Your task to perform on an android device: turn on javascript in the chrome app Image 0: 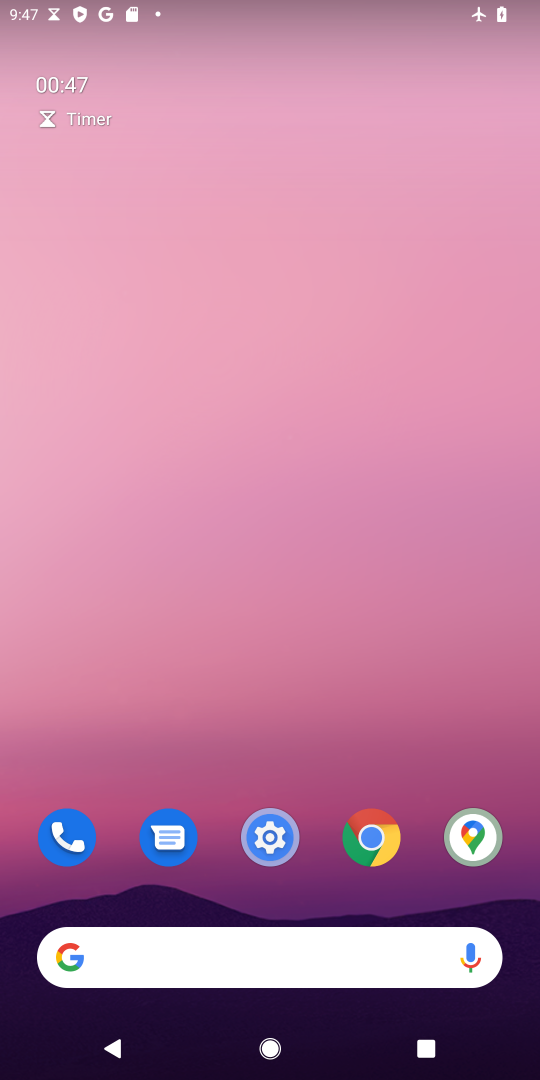
Step 0: click (367, 842)
Your task to perform on an android device: turn on javascript in the chrome app Image 1: 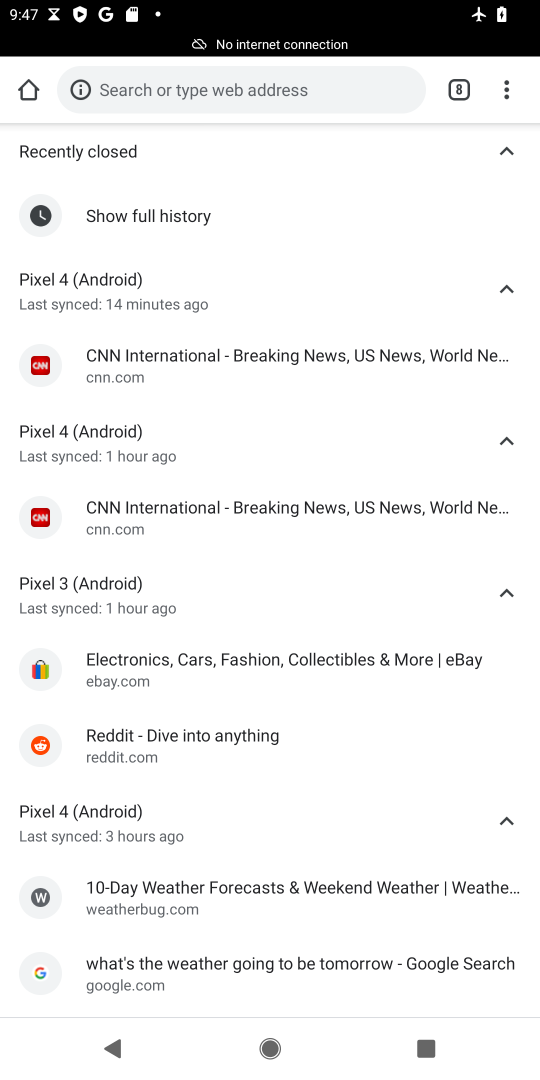
Step 1: drag from (508, 96) to (328, 669)
Your task to perform on an android device: turn on javascript in the chrome app Image 2: 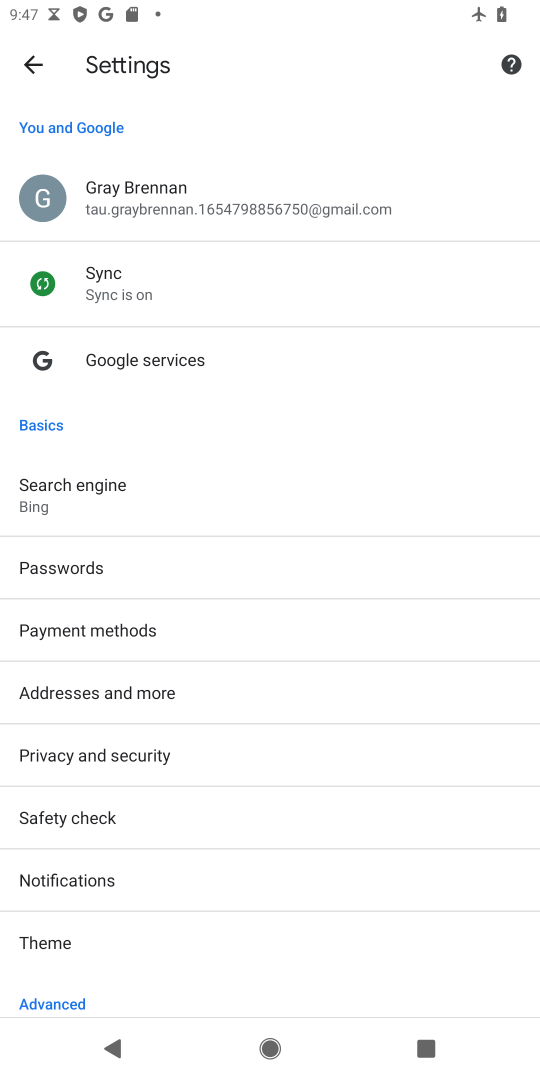
Step 2: drag from (49, 909) to (61, 494)
Your task to perform on an android device: turn on javascript in the chrome app Image 3: 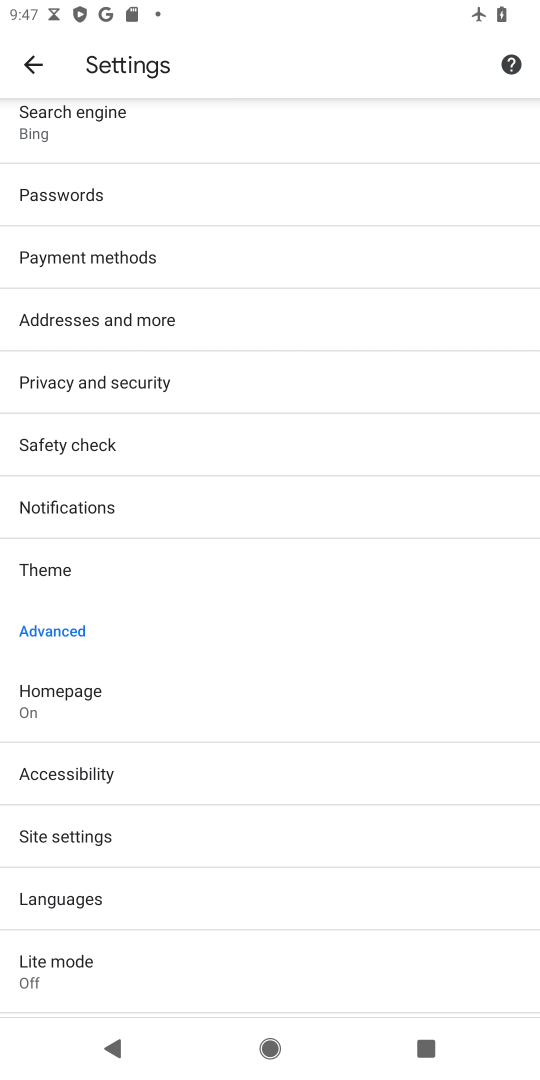
Step 3: click (60, 836)
Your task to perform on an android device: turn on javascript in the chrome app Image 4: 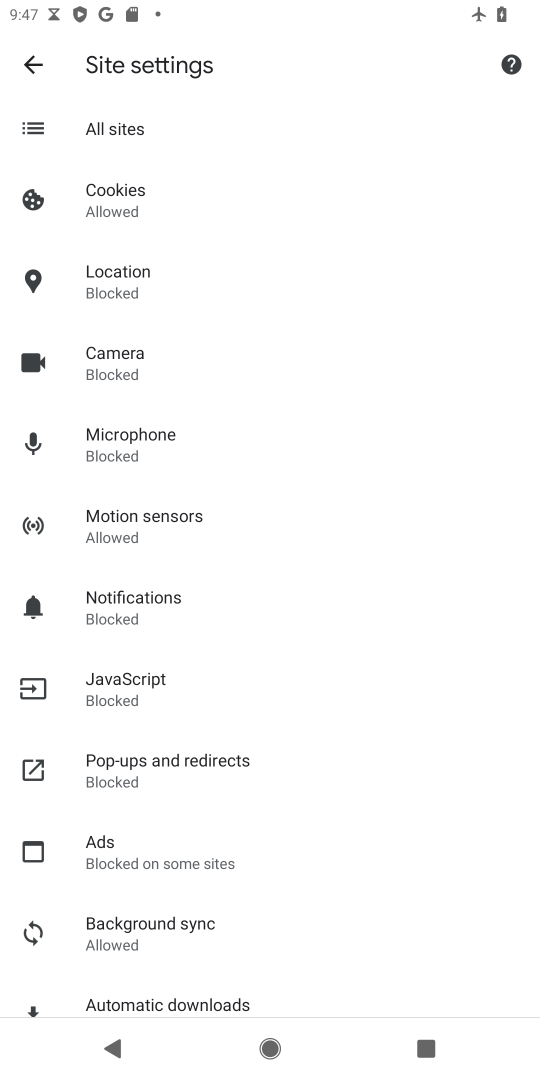
Step 4: click (124, 687)
Your task to perform on an android device: turn on javascript in the chrome app Image 5: 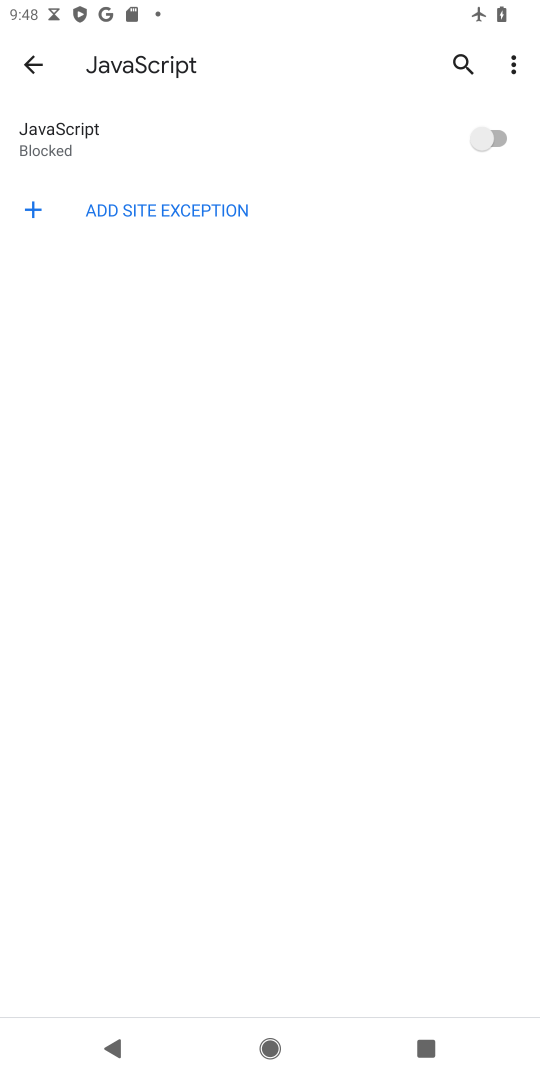
Step 5: click (506, 141)
Your task to perform on an android device: turn on javascript in the chrome app Image 6: 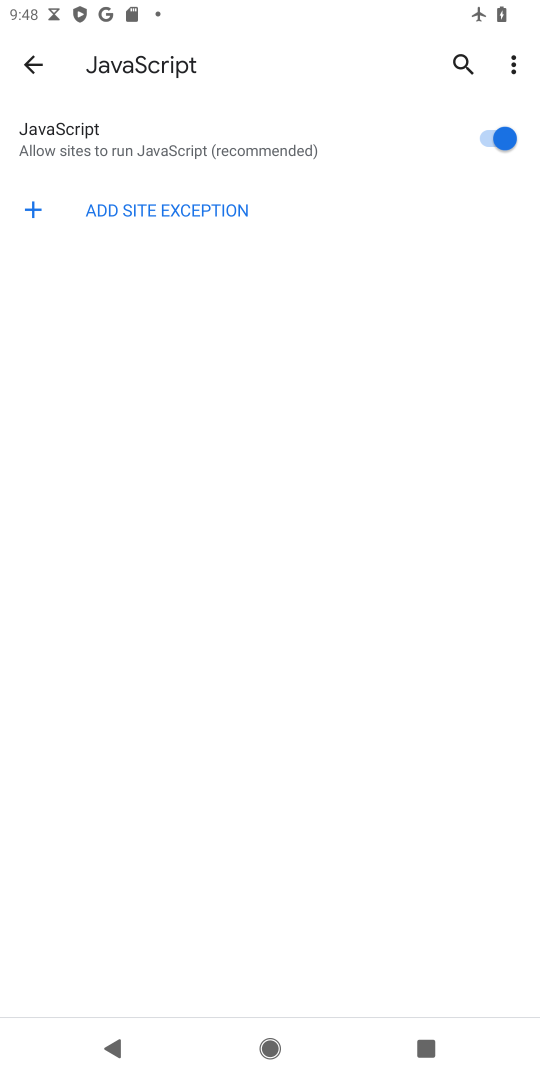
Step 6: task complete